Your task to perform on an android device: Search for Italian restaurants on Maps Image 0: 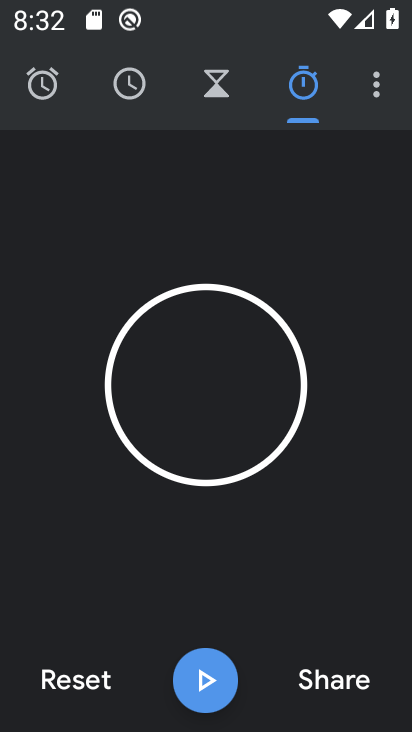
Step 0: press home button
Your task to perform on an android device: Search for Italian restaurants on Maps Image 1: 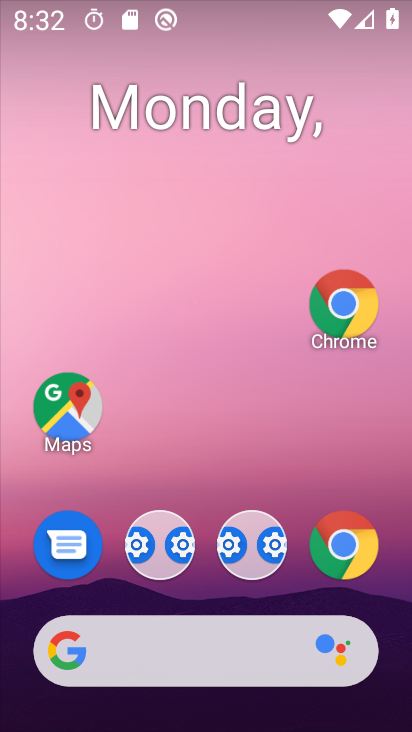
Step 1: drag from (282, 695) to (116, 134)
Your task to perform on an android device: Search for Italian restaurants on Maps Image 2: 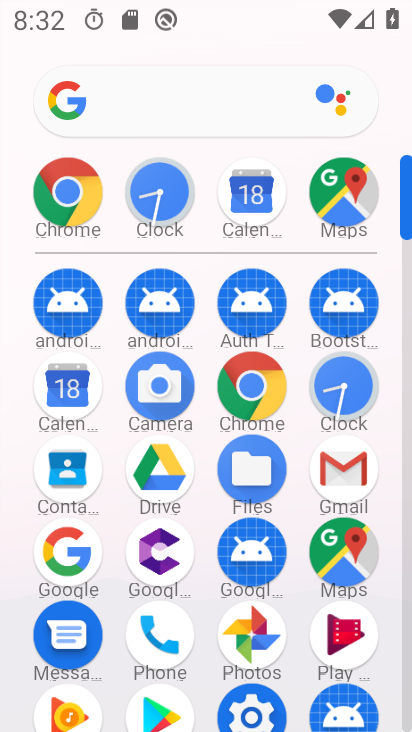
Step 2: click (331, 181)
Your task to perform on an android device: Search for Italian restaurants on Maps Image 3: 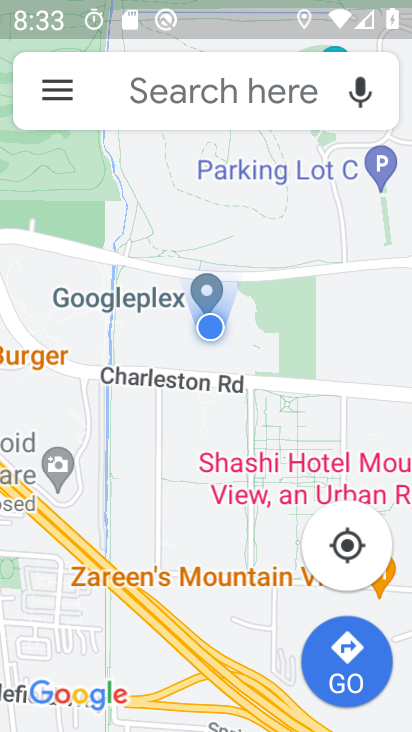
Step 3: click (120, 90)
Your task to perform on an android device: Search for Italian restaurants on Maps Image 4: 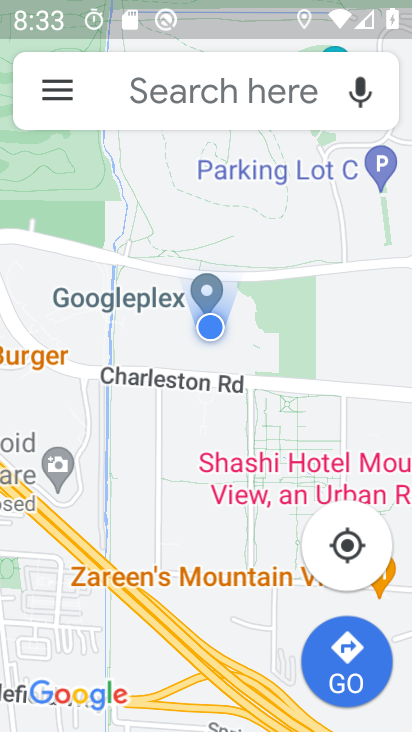
Step 4: click (120, 90)
Your task to perform on an android device: Search for Italian restaurants on Maps Image 5: 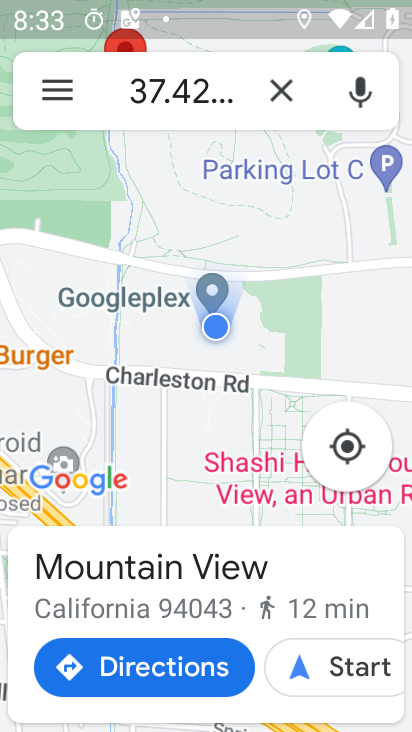
Step 5: click (275, 91)
Your task to perform on an android device: Search for Italian restaurants on Maps Image 6: 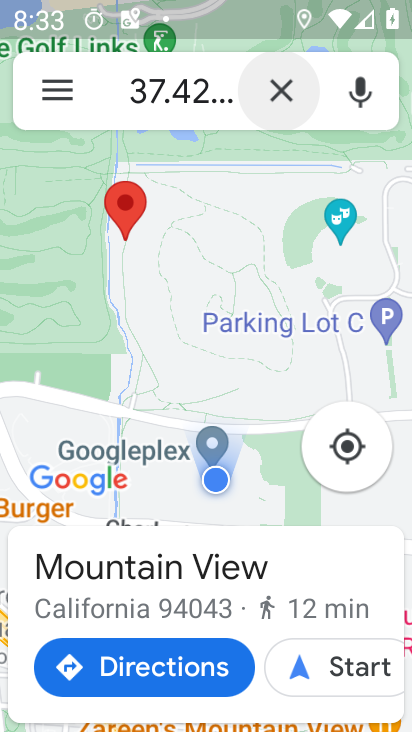
Step 6: click (275, 91)
Your task to perform on an android device: Search for Italian restaurants on Maps Image 7: 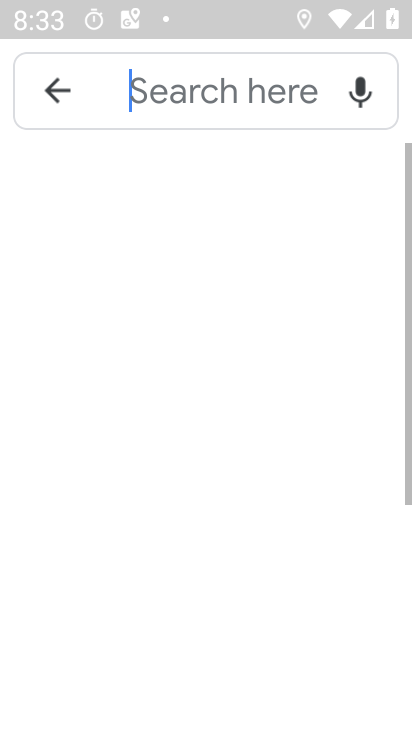
Step 7: click (115, 81)
Your task to perform on an android device: Search for Italian restaurants on Maps Image 8: 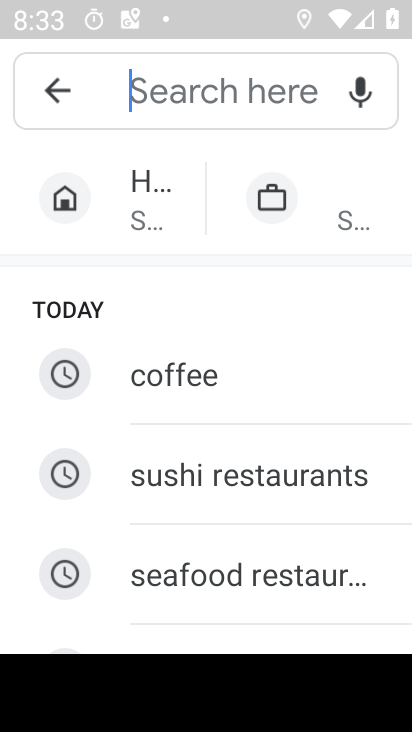
Step 8: type "italian restaurants"
Your task to perform on an android device: Search for Italian restaurants on Maps Image 9: 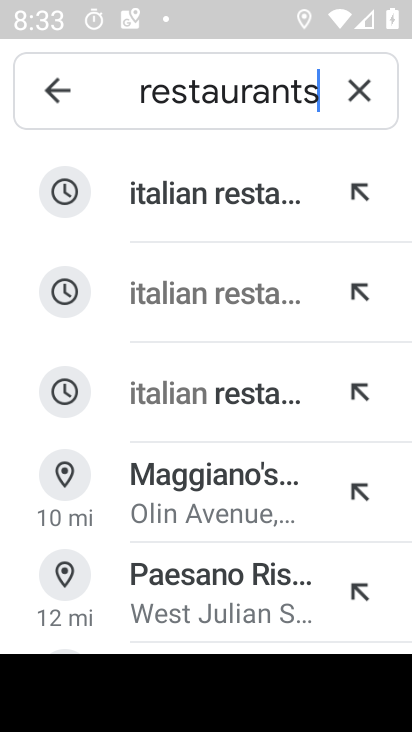
Step 9: click (232, 196)
Your task to perform on an android device: Search for Italian restaurants on Maps Image 10: 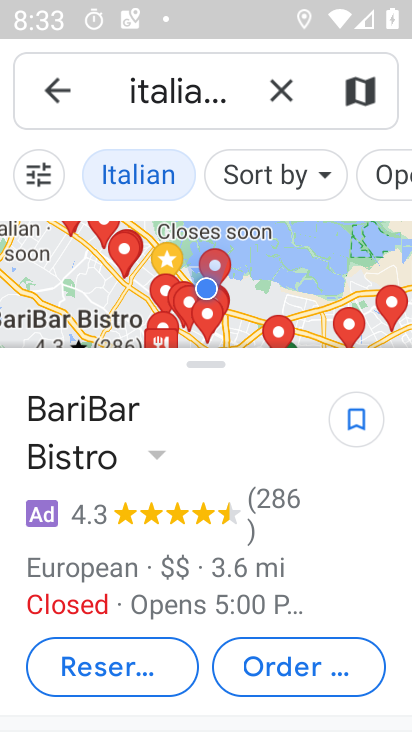
Step 10: task complete